Your task to perform on an android device: Turn off the flashlight Image 0: 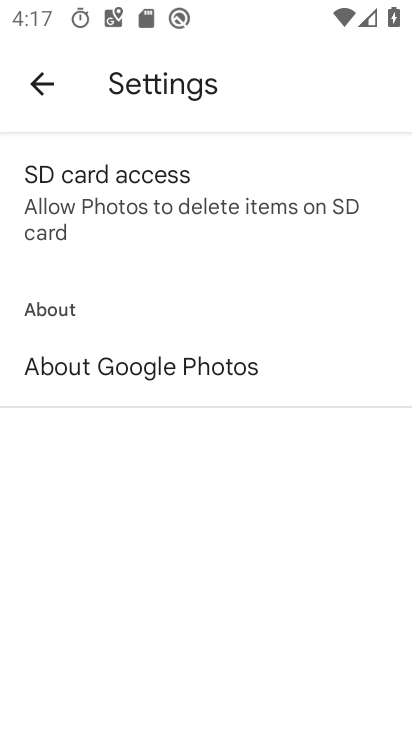
Step 0: press home button
Your task to perform on an android device: Turn off the flashlight Image 1: 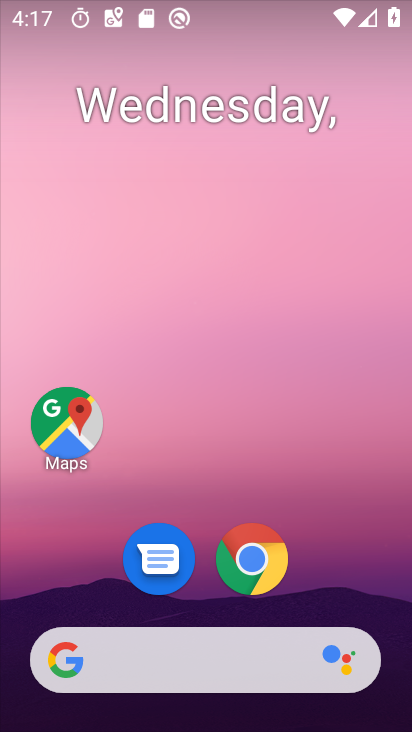
Step 1: task complete